Your task to perform on an android device: Open Amazon Image 0: 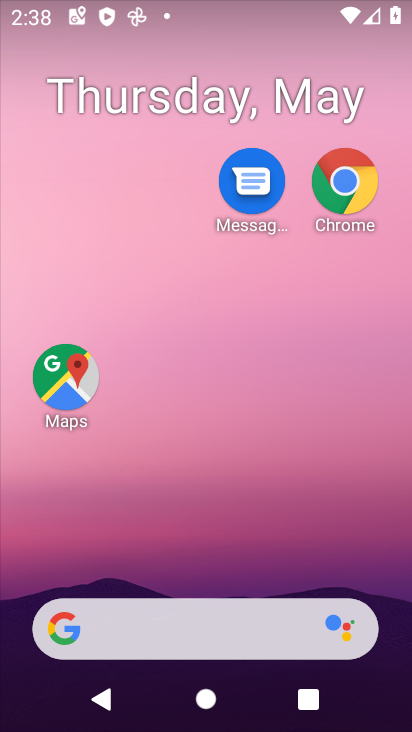
Step 0: drag from (217, 627) to (173, 0)
Your task to perform on an android device: Open Amazon Image 1: 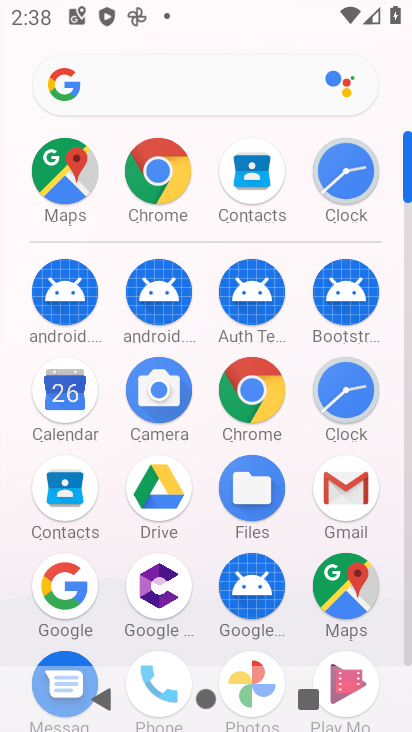
Step 1: click (268, 398)
Your task to perform on an android device: Open Amazon Image 2: 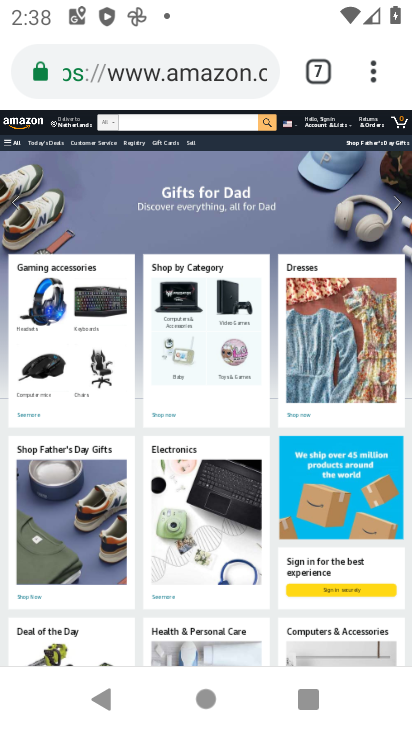
Step 2: task complete